Your task to perform on an android device: empty trash in the gmail app Image 0: 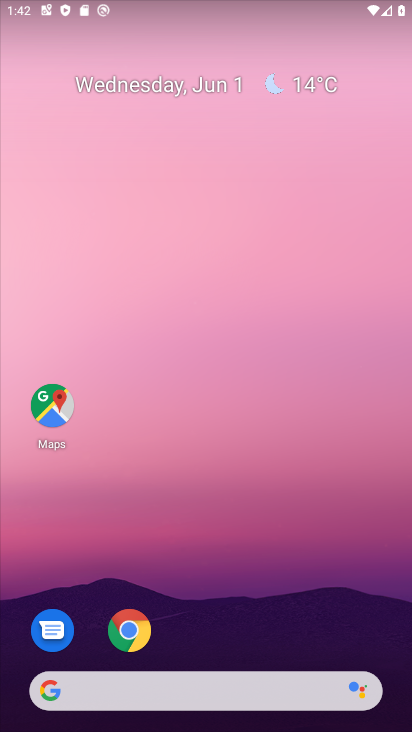
Step 0: press home button
Your task to perform on an android device: empty trash in the gmail app Image 1: 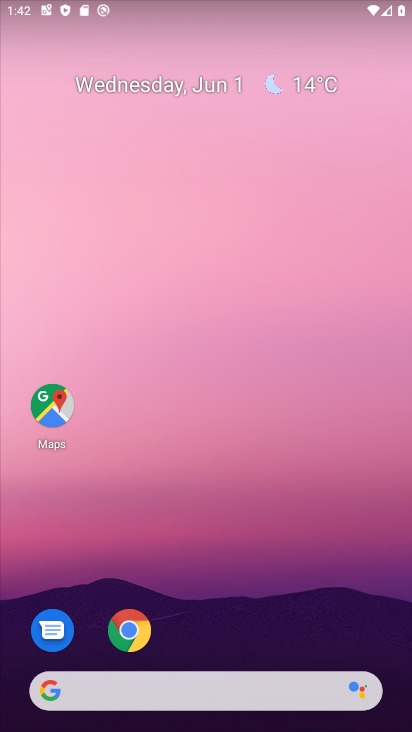
Step 1: drag from (207, 642) to (273, 199)
Your task to perform on an android device: empty trash in the gmail app Image 2: 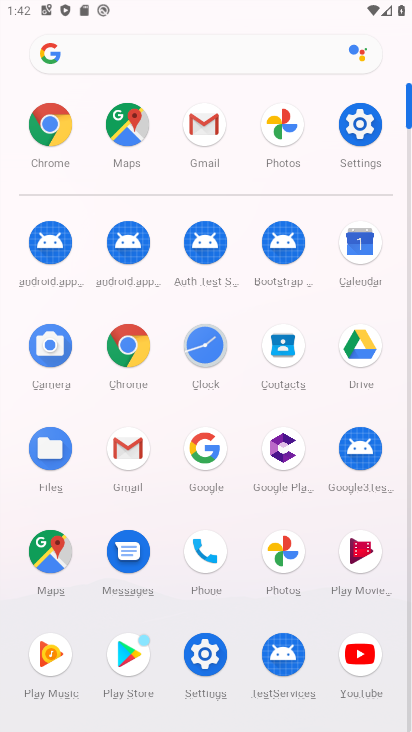
Step 2: click (193, 119)
Your task to perform on an android device: empty trash in the gmail app Image 3: 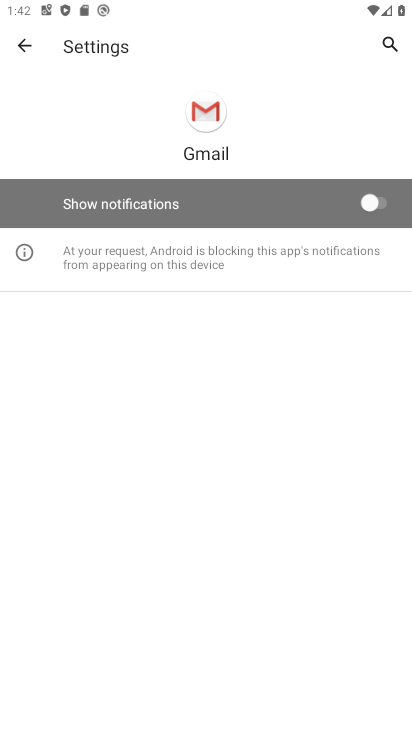
Step 3: click (26, 47)
Your task to perform on an android device: empty trash in the gmail app Image 4: 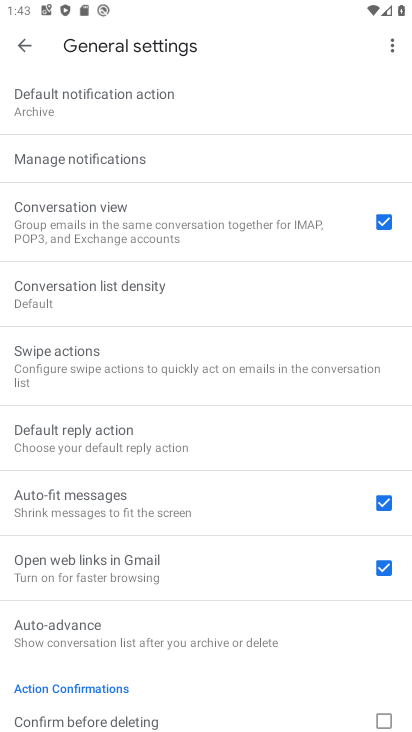
Step 4: click (23, 48)
Your task to perform on an android device: empty trash in the gmail app Image 5: 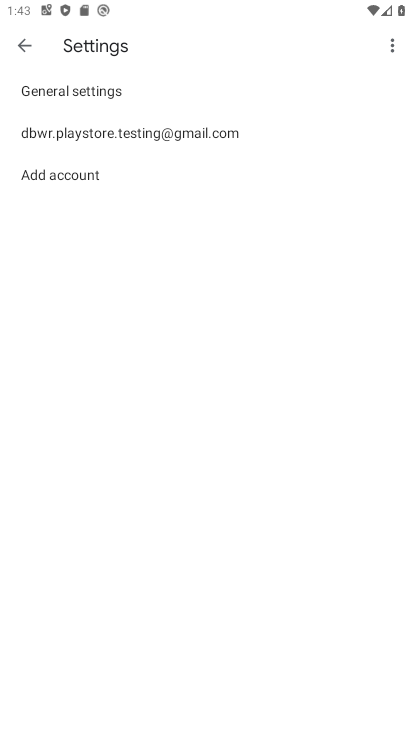
Step 5: click (15, 37)
Your task to perform on an android device: empty trash in the gmail app Image 6: 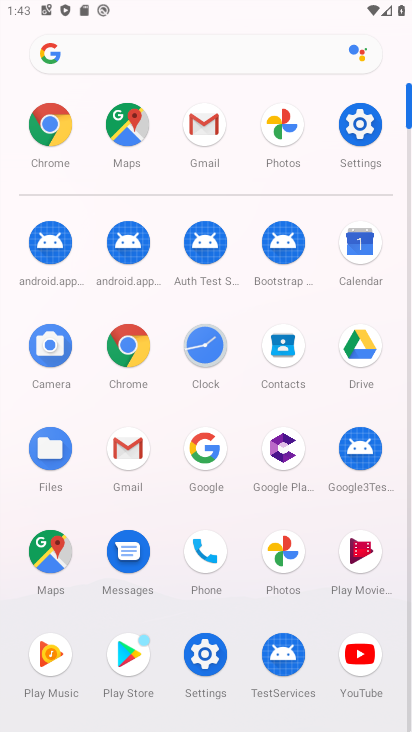
Step 6: click (209, 114)
Your task to perform on an android device: empty trash in the gmail app Image 7: 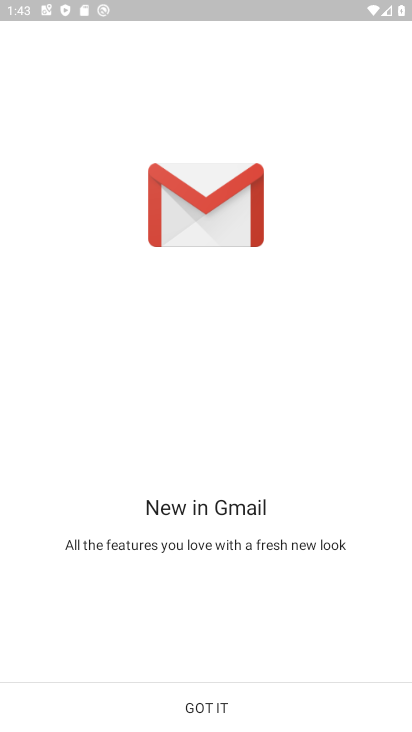
Step 7: click (196, 704)
Your task to perform on an android device: empty trash in the gmail app Image 8: 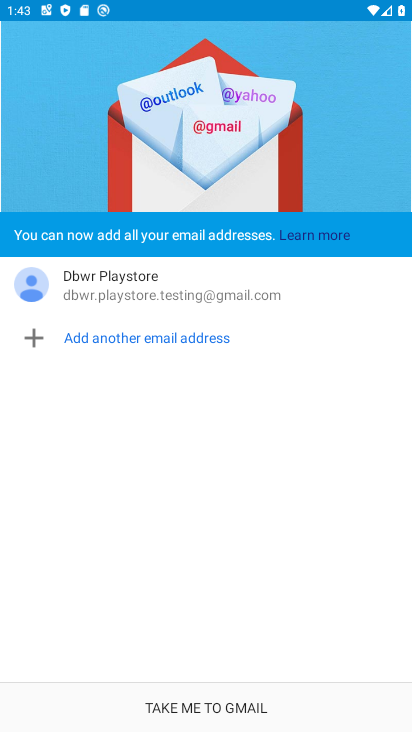
Step 8: click (196, 704)
Your task to perform on an android device: empty trash in the gmail app Image 9: 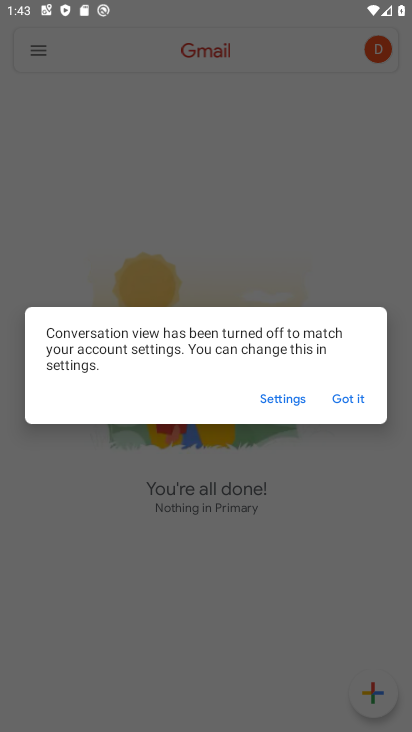
Step 9: click (340, 395)
Your task to perform on an android device: empty trash in the gmail app Image 10: 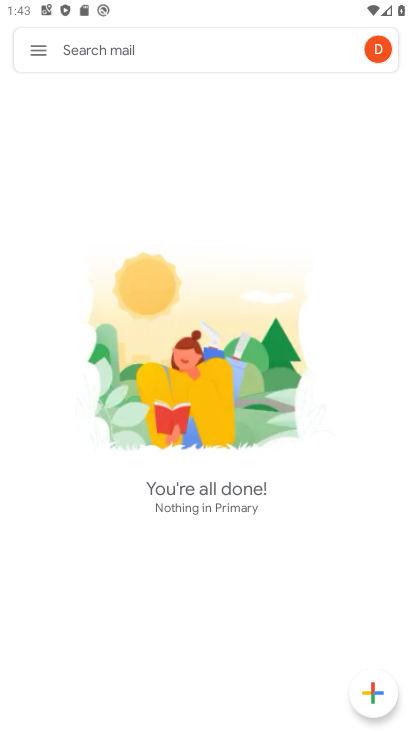
Step 10: click (38, 47)
Your task to perform on an android device: empty trash in the gmail app Image 11: 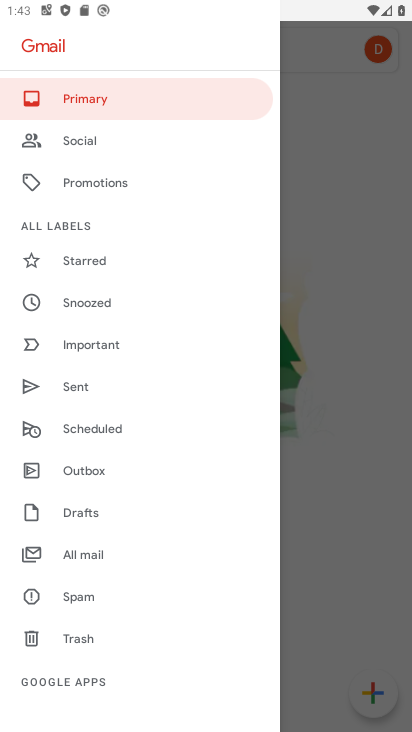
Step 11: click (106, 633)
Your task to perform on an android device: empty trash in the gmail app Image 12: 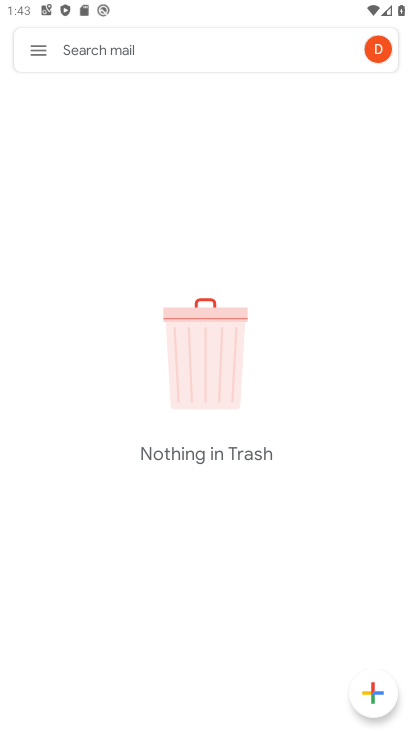
Step 12: task complete